Your task to perform on an android device: see creations saved in the google photos Image 0: 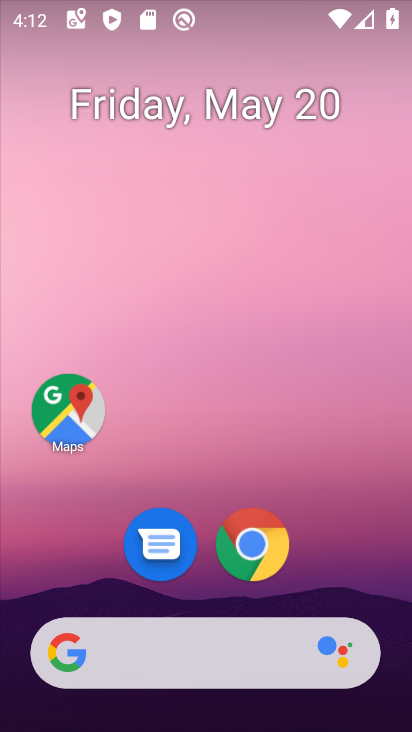
Step 0: drag from (359, 597) to (287, 18)
Your task to perform on an android device: see creations saved in the google photos Image 1: 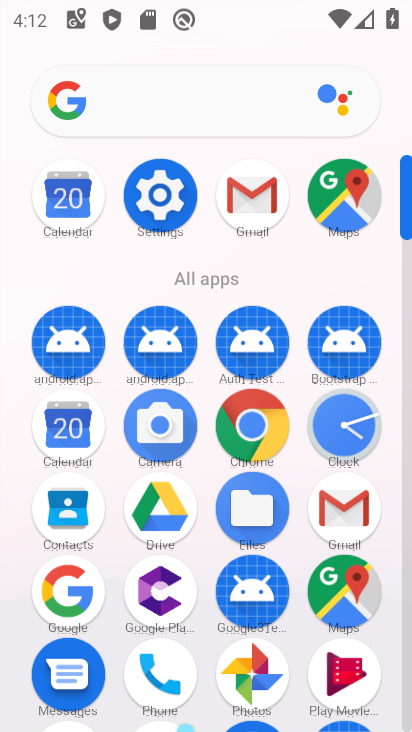
Step 1: click (266, 668)
Your task to perform on an android device: see creations saved in the google photos Image 2: 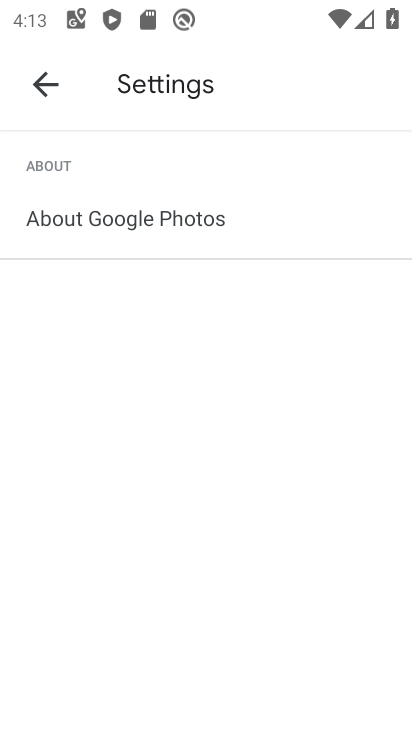
Step 2: click (40, 87)
Your task to perform on an android device: see creations saved in the google photos Image 3: 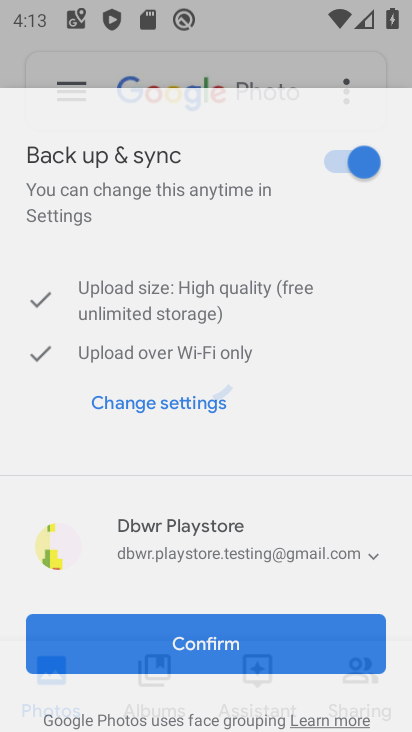
Step 3: click (163, 100)
Your task to perform on an android device: see creations saved in the google photos Image 4: 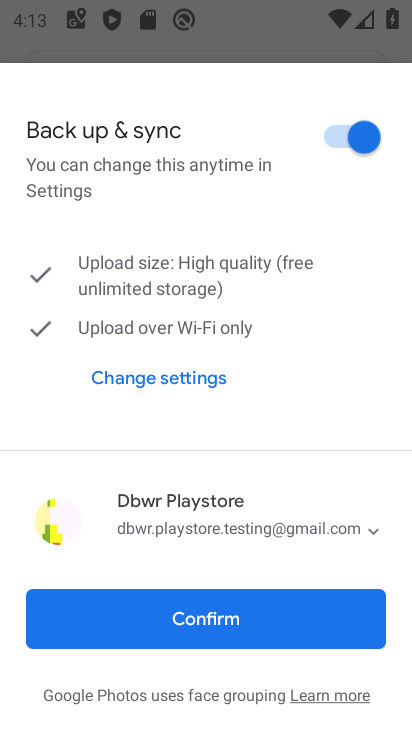
Step 4: click (321, 634)
Your task to perform on an android device: see creations saved in the google photos Image 5: 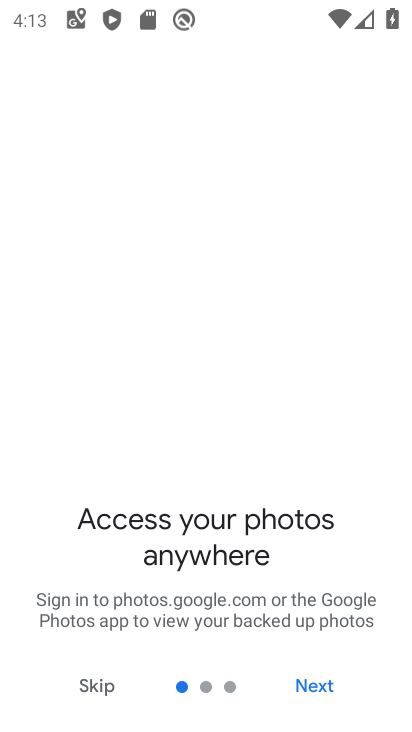
Step 5: click (113, 689)
Your task to perform on an android device: see creations saved in the google photos Image 6: 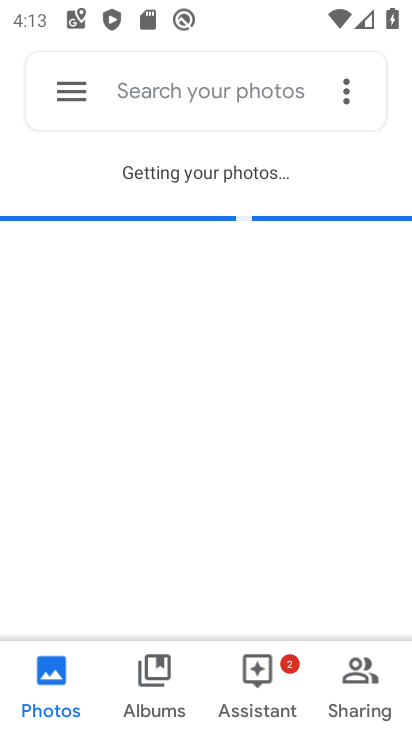
Step 6: click (135, 95)
Your task to perform on an android device: see creations saved in the google photos Image 7: 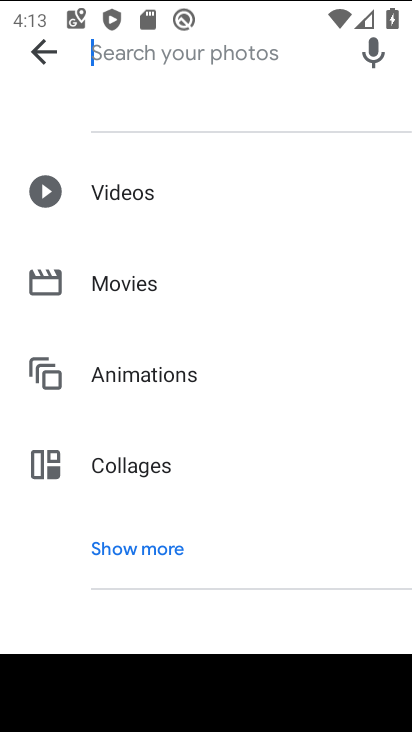
Step 7: click (133, 561)
Your task to perform on an android device: see creations saved in the google photos Image 8: 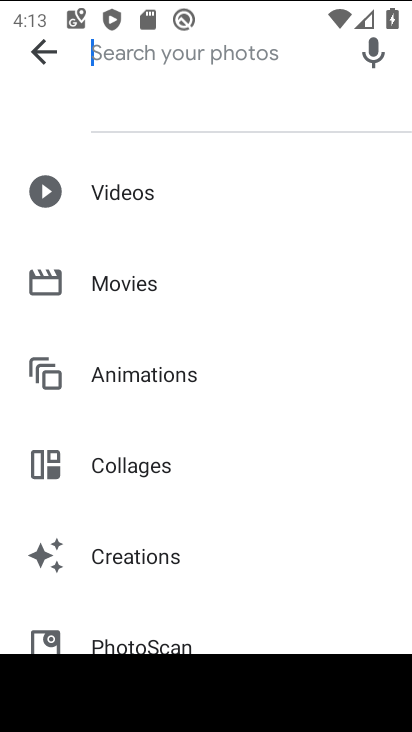
Step 8: click (159, 567)
Your task to perform on an android device: see creations saved in the google photos Image 9: 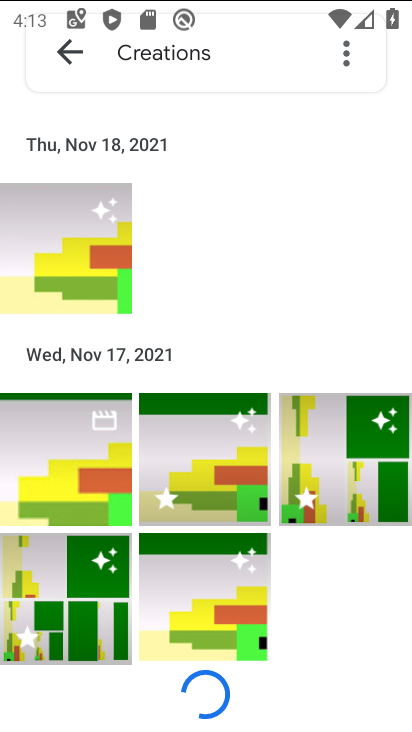
Step 9: task complete